Your task to perform on an android device: turn on airplane mode Image 0: 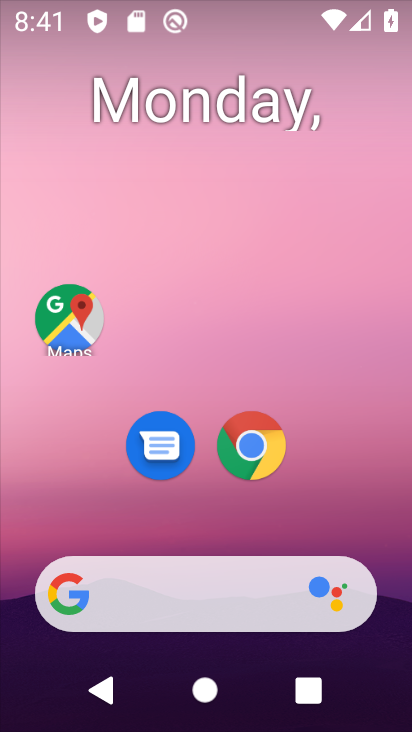
Step 0: drag from (331, 618) to (373, 59)
Your task to perform on an android device: turn on airplane mode Image 1: 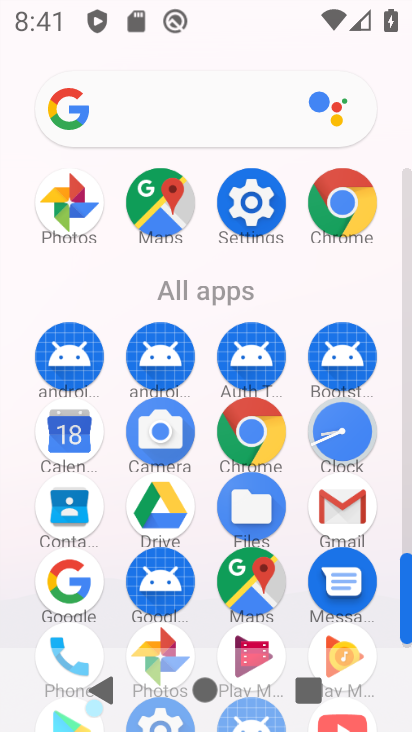
Step 1: drag from (287, 125) to (391, 94)
Your task to perform on an android device: turn on airplane mode Image 2: 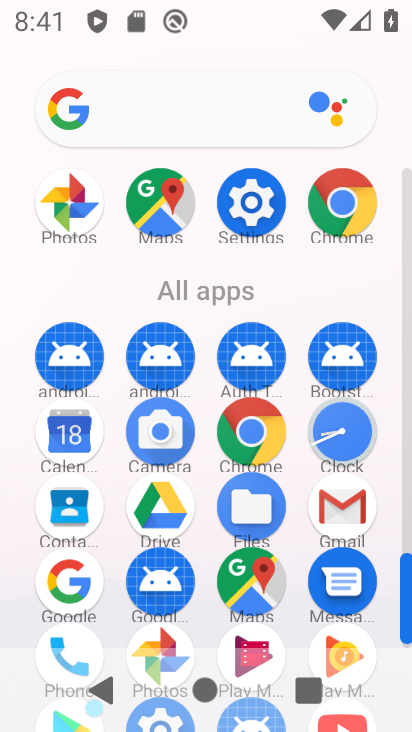
Step 2: click (254, 227)
Your task to perform on an android device: turn on airplane mode Image 3: 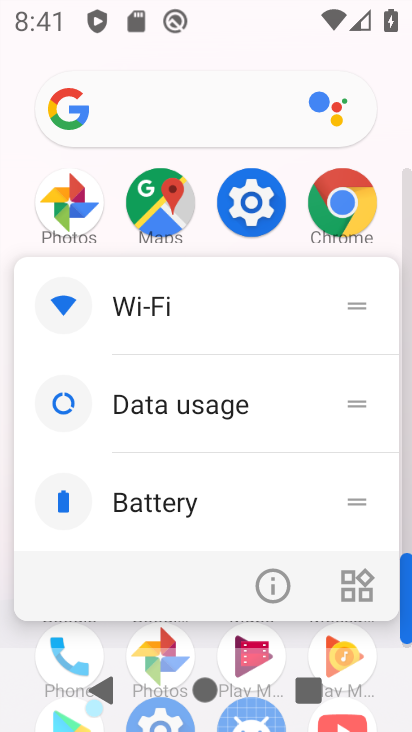
Step 3: click (255, 226)
Your task to perform on an android device: turn on airplane mode Image 4: 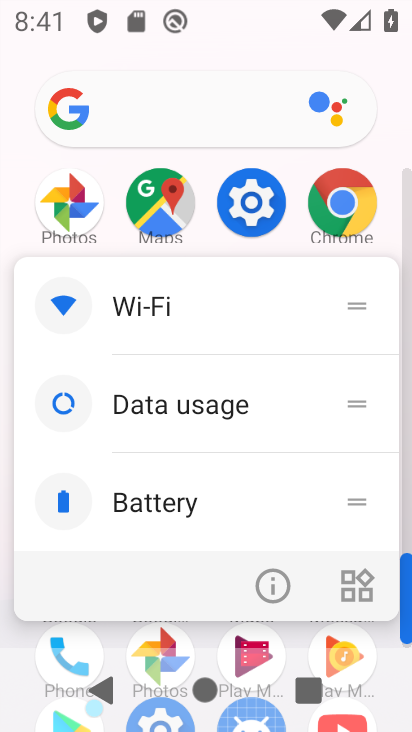
Step 4: click (264, 219)
Your task to perform on an android device: turn on airplane mode Image 5: 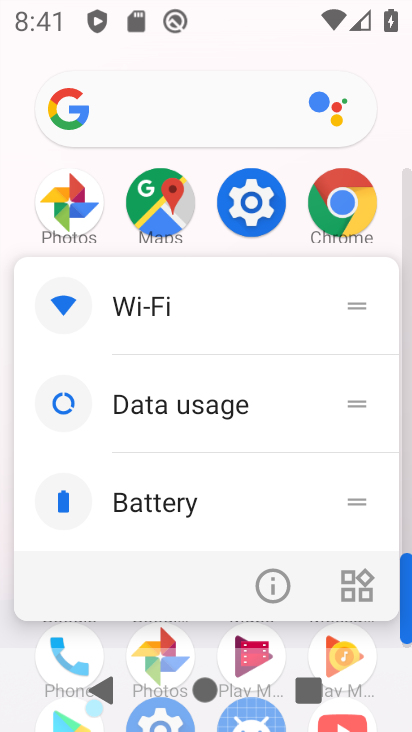
Step 5: click (264, 217)
Your task to perform on an android device: turn on airplane mode Image 6: 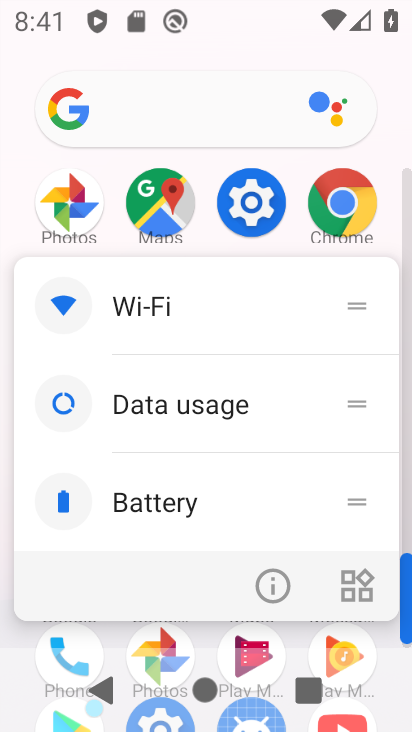
Step 6: click (264, 215)
Your task to perform on an android device: turn on airplane mode Image 7: 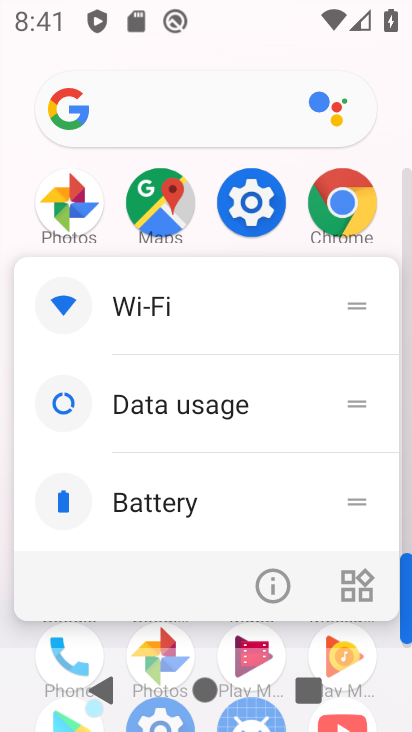
Step 7: click (274, 192)
Your task to perform on an android device: turn on airplane mode Image 8: 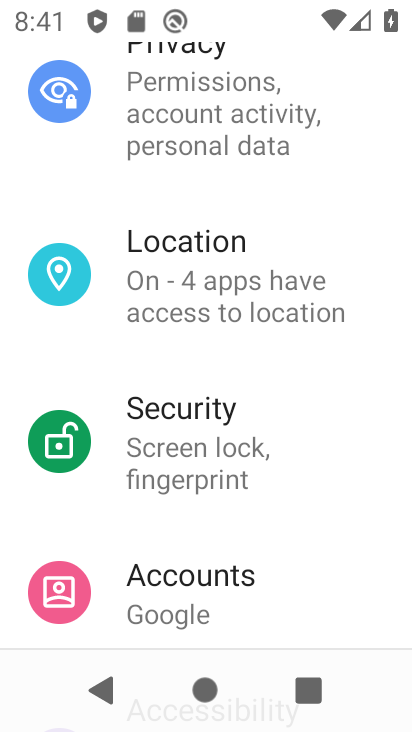
Step 8: drag from (300, 169) to (370, 697)
Your task to perform on an android device: turn on airplane mode Image 9: 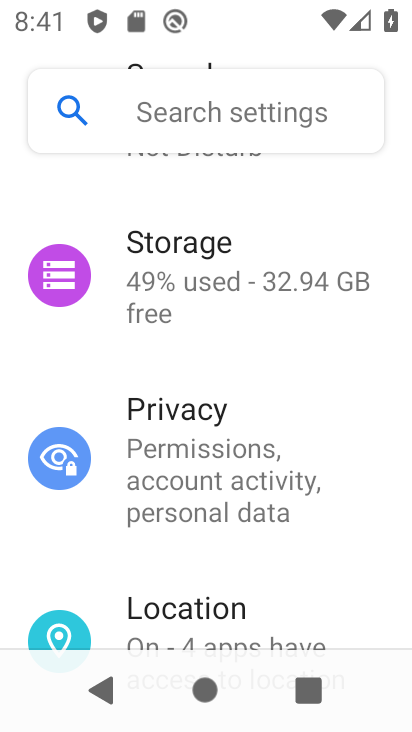
Step 9: drag from (320, 221) to (320, 667)
Your task to perform on an android device: turn on airplane mode Image 10: 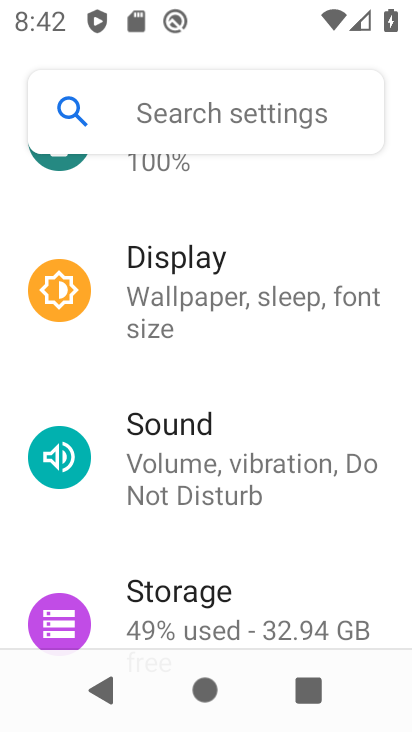
Step 10: drag from (352, 342) to (343, 719)
Your task to perform on an android device: turn on airplane mode Image 11: 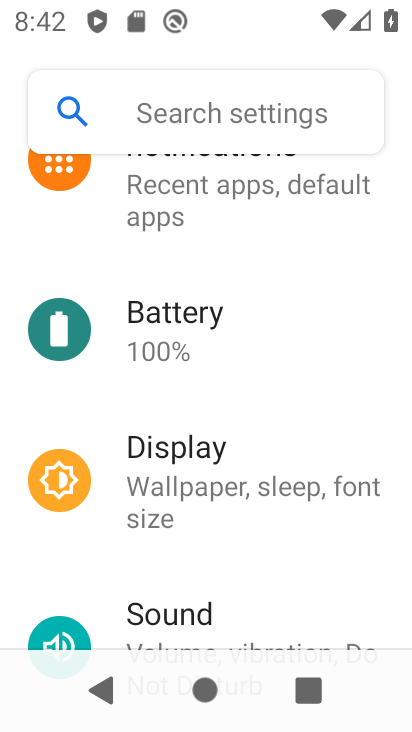
Step 11: drag from (358, 328) to (351, 729)
Your task to perform on an android device: turn on airplane mode Image 12: 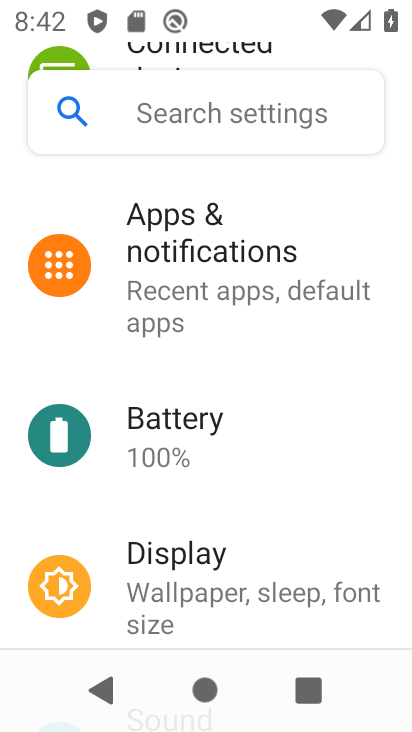
Step 12: drag from (321, 210) to (287, 671)
Your task to perform on an android device: turn on airplane mode Image 13: 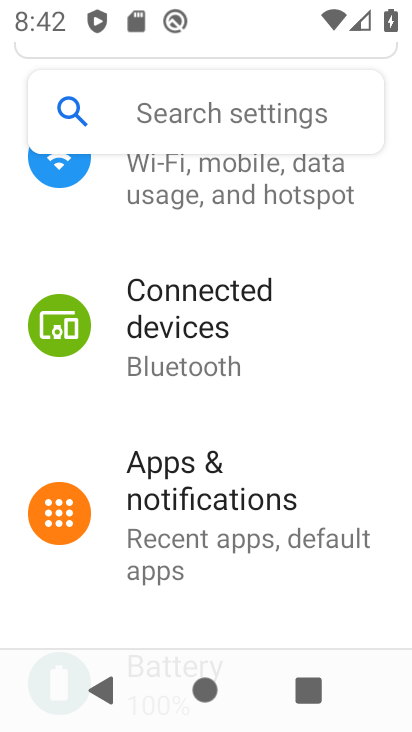
Step 13: drag from (281, 239) to (341, 626)
Your task to perform on an android device: turn on airplane mode Image 14: 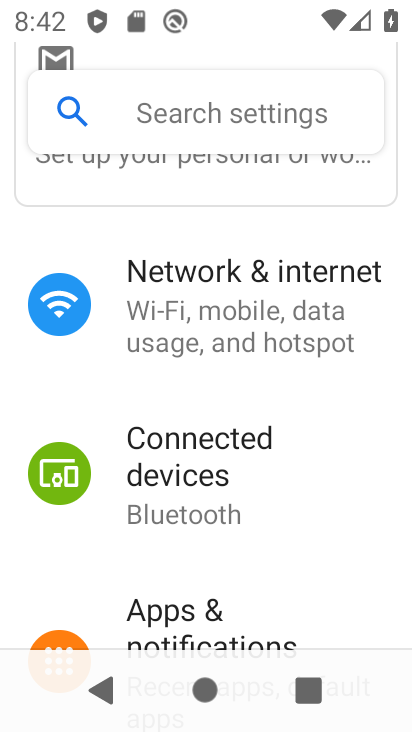
Step 14: click (311, 299)
Your task to perform on an android device: turn on airplane mode Image 15: 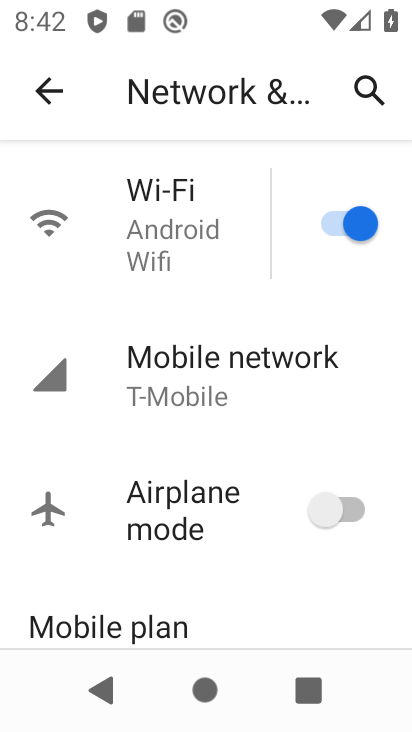
Step 15: click (328, 516)
Your task to perform on an android device: turn on airplane mode Image 16: 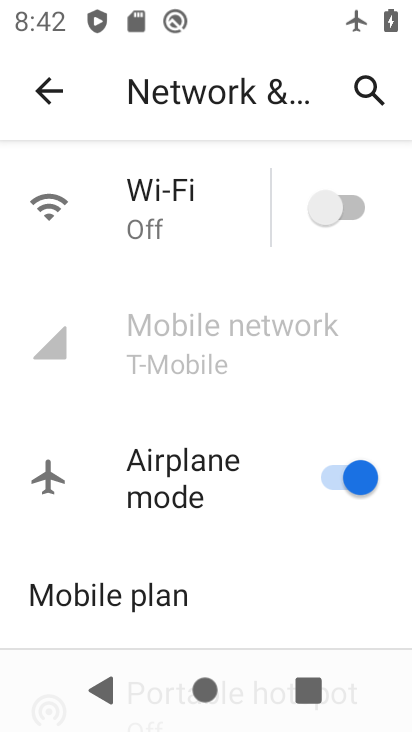
Step 16: task complete